Your task to perform on an android device: Go to eBay Image 0: 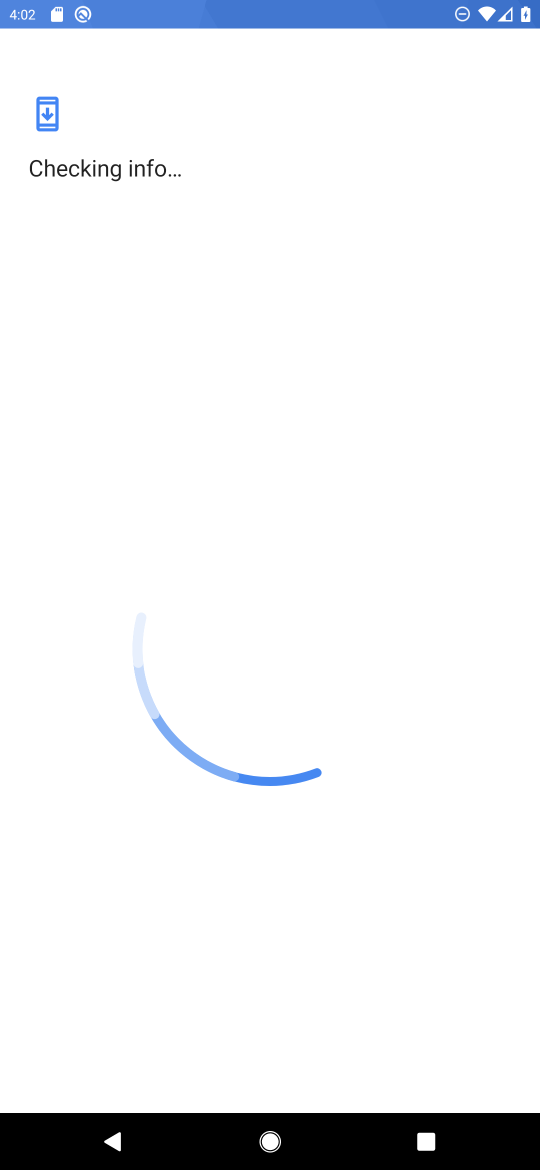
Step 0: press home button
Your task to perform on an android device: Go to eBay Image 1: 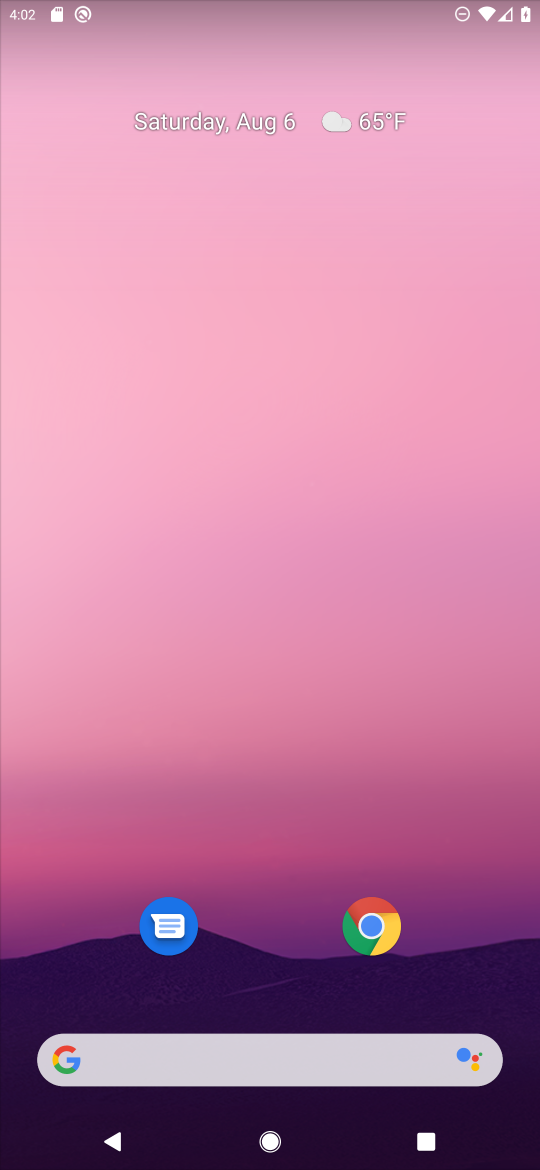
Step 1: click (354, 934)
Your task to perform on an android device: Go to eBay Image 2: 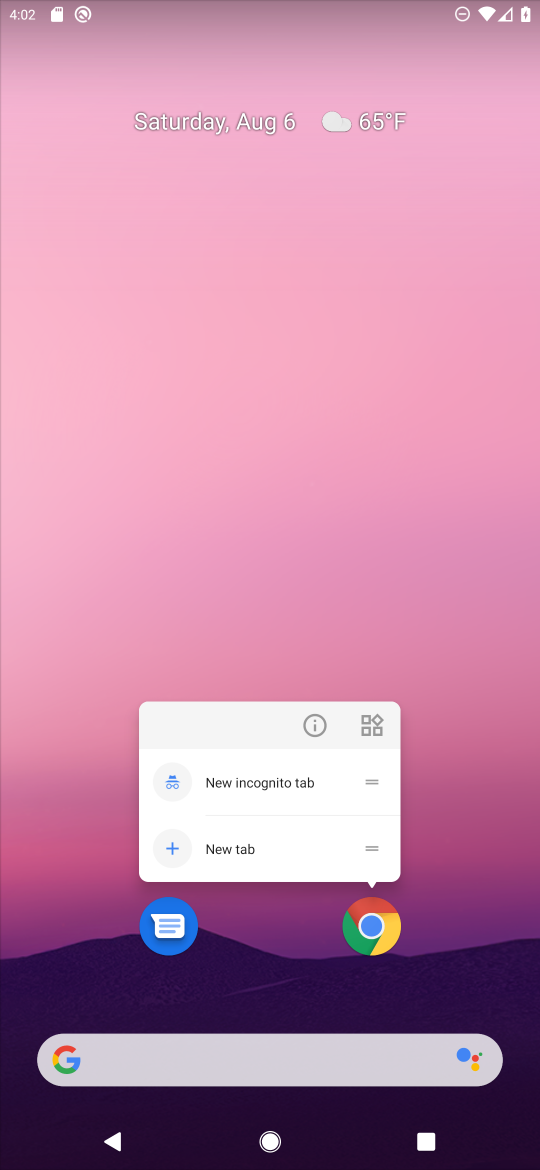
Step 2: click (356, 934)
Your task to perform on an android device: Go to eBay Image 3: 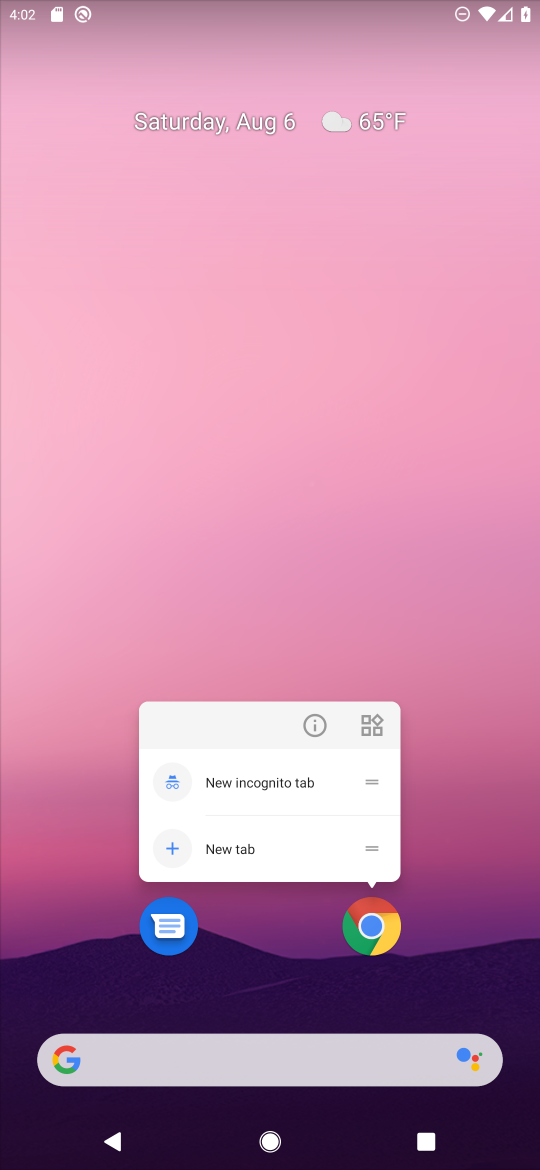
Step 3: click (356, 934)
Your task to perform on an android device: Go to eBay Image 4: 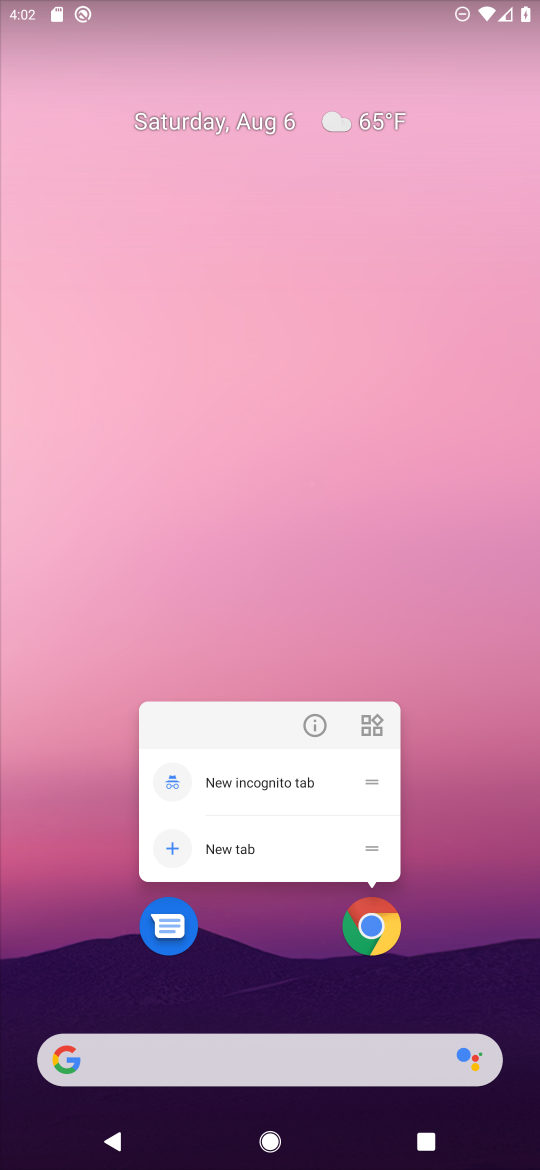
Step 4: click (356, 934)
Your task to perform on an android device: Go to eBay Image 5: 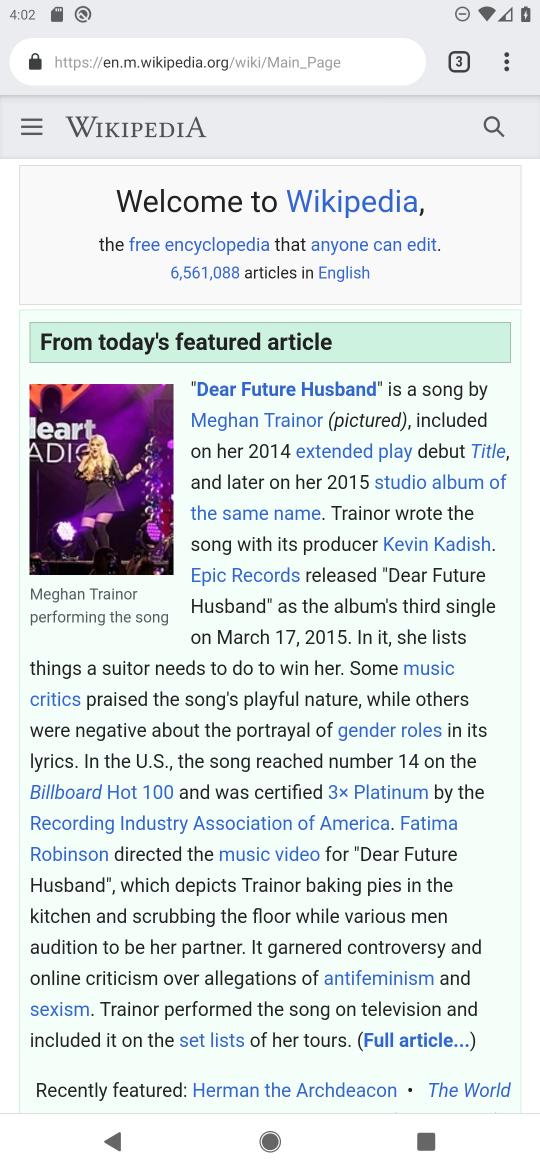
Step 5: click (454, 67)
Your task to perform on an android device: Go to eBay Image 6: 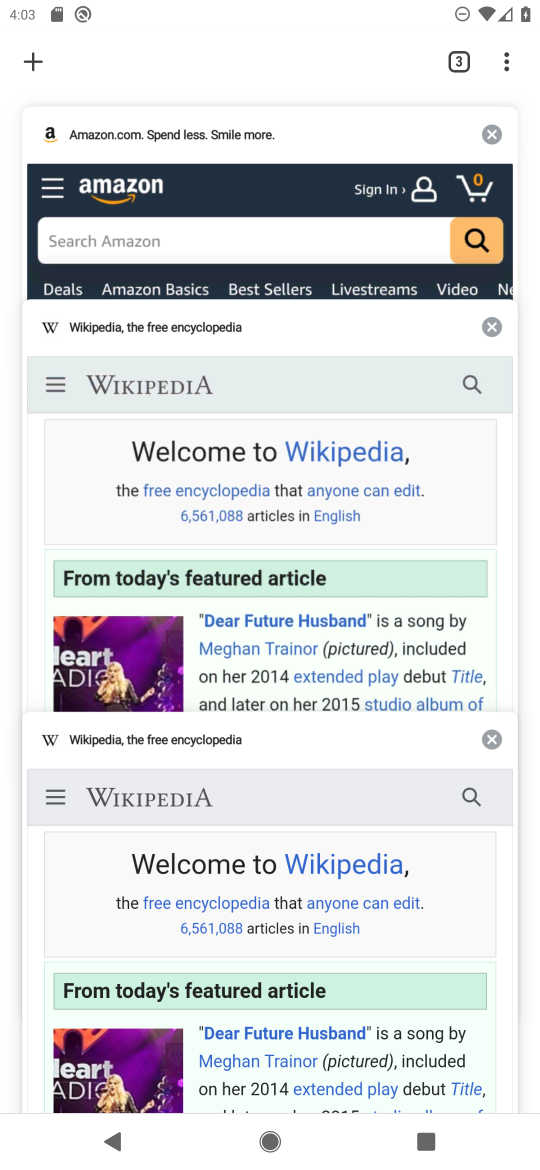
Step 6: click (29, 58)
Your task to perform on an android device: Go to eBay Image 7: 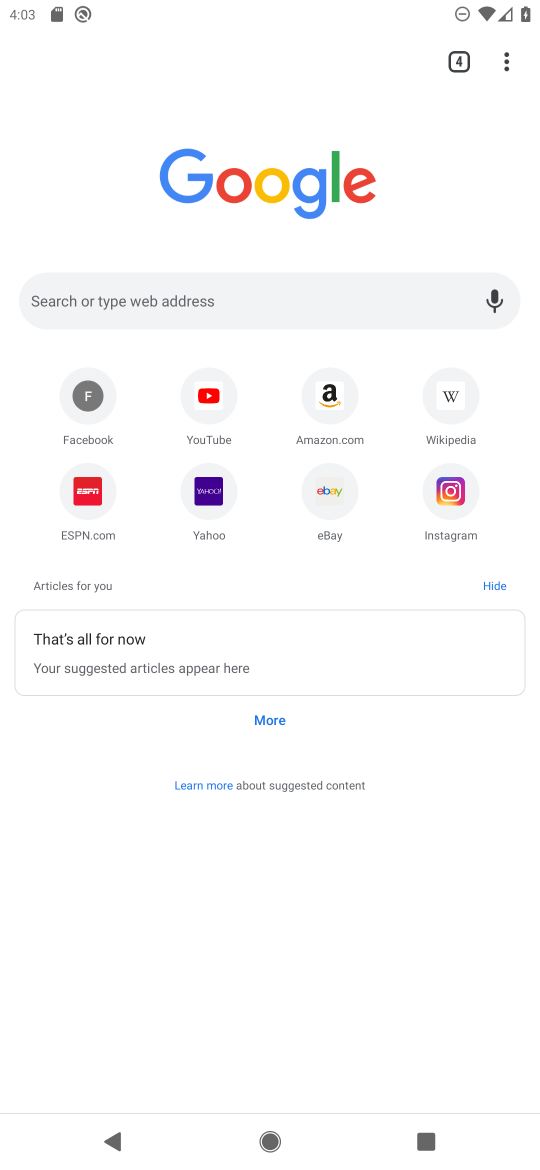
Step 7: click (309, 494)
Your task to perform on an android device: Go to eBay Image 8: 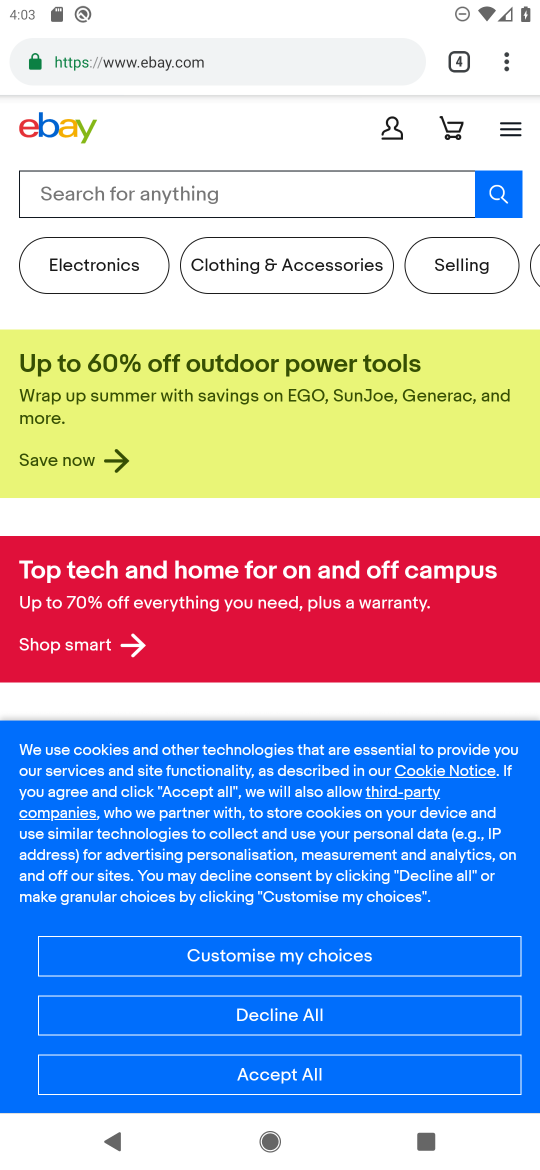
Step 8: task complete